Your task to perform on an android device: Go to Yahoo.com Image 0: 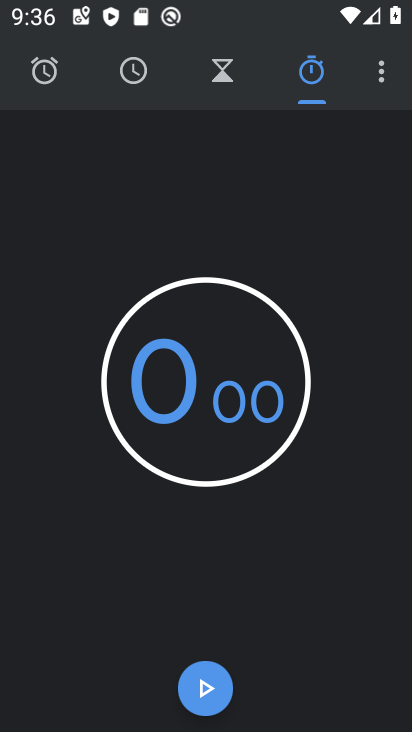
Step 0: press home button
Your task to perform on an android device: Go to Yahoo.com Image 1: 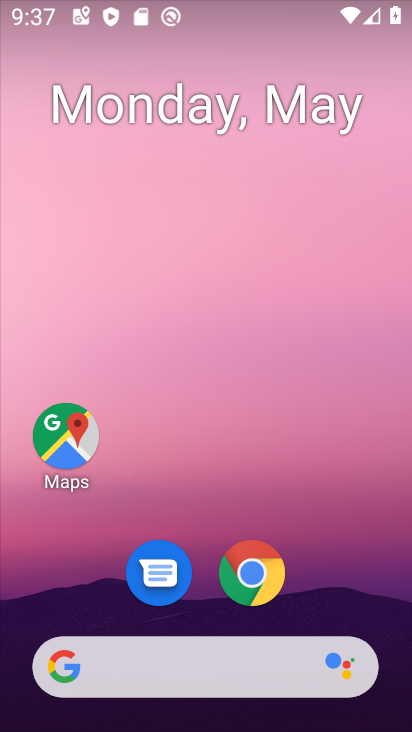
Step 1: click (240, 666)
Your task to perform on an android device: Go to Yahoo.com Image 2: 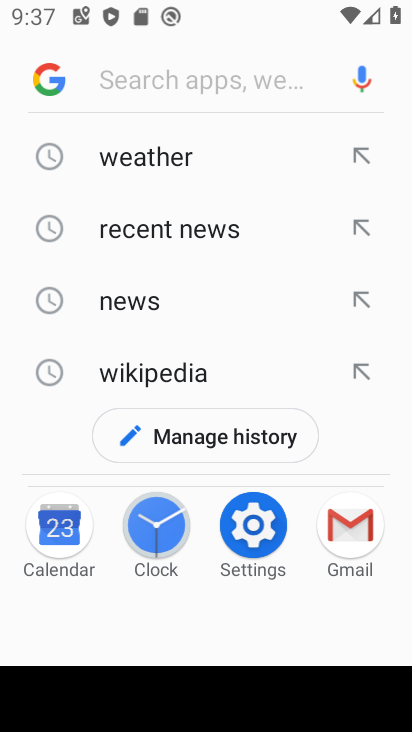
Step 2: type "yahho.com"
Your task to perform on an android device: Go to Yahoo.com Image 3: 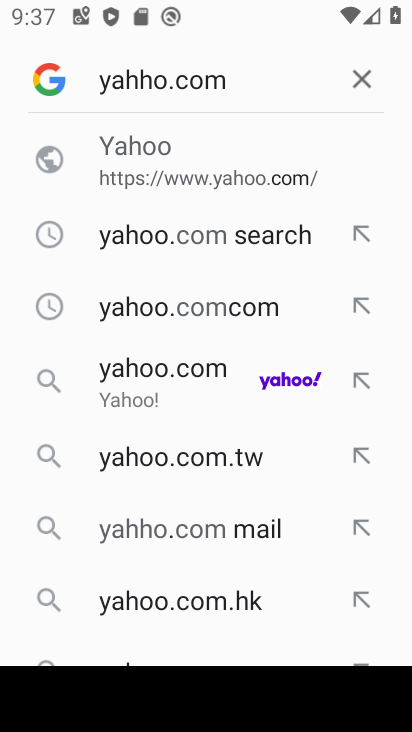
Step 3: click (181, 138)
Your task to perform on an android device: Go to Yahoo.com Image 4: 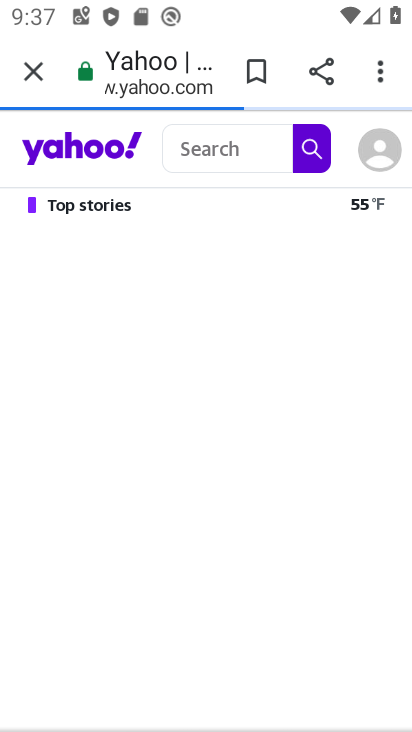
Step 4: task complete